Your task to perform on an android device: find snoozed emails in the gmail app Image 0: 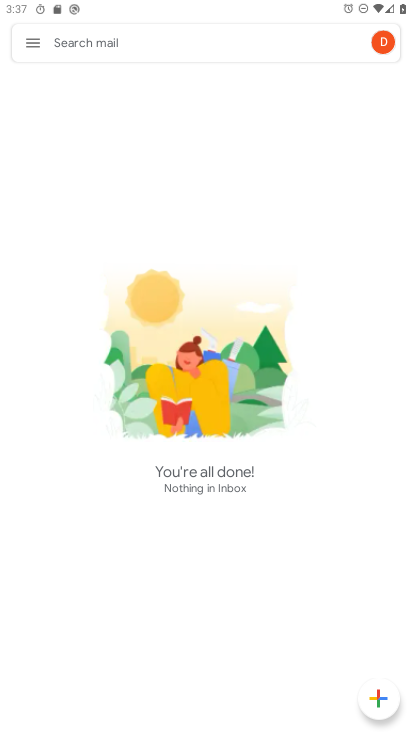
Step 0: click (31, 40)
Your task to perform on an android device: find snoozed emails in the gmail app Image 1: 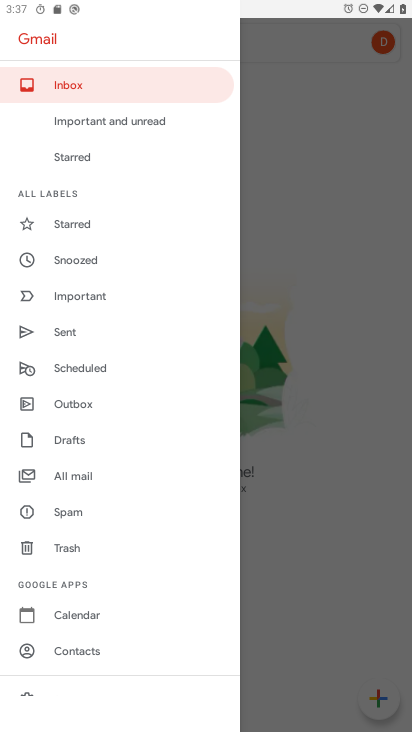
Step 1: click (73, 255)
Your task to perform on an android device: find snoozed emails in the gmail app Image 2: 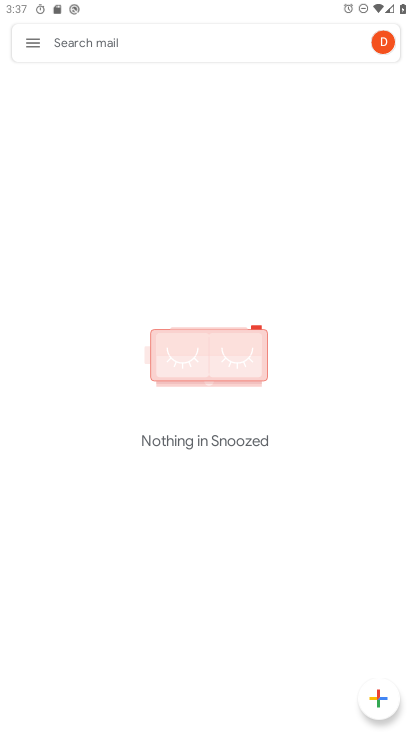
Step 2: task complete